Your task to perform on an android device: Turn off the flashlight Image 0: 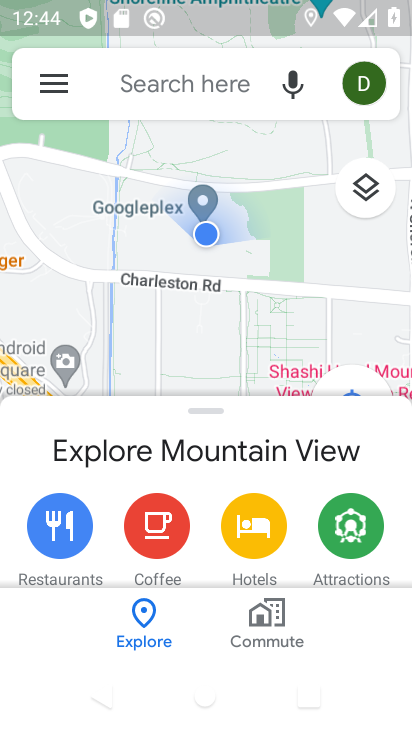
Step 0: press back button
Your task to perform on an android device: Turn off the flashlight Image 1: 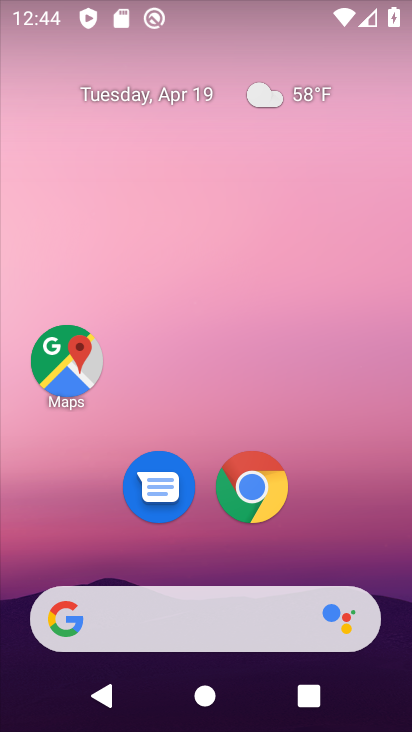
Step 1: drag from (206, 726) to (212, 25)
Your task to perform on an android device: Turn off the flashlight Image 2: 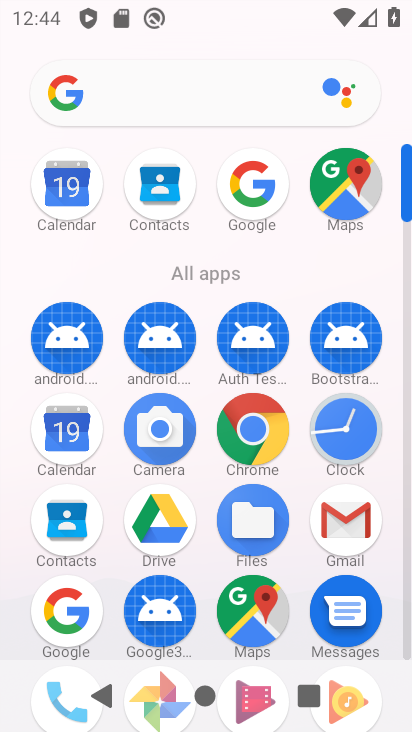
Step 2: drag from (205, 648) to (210, 173)
Your task to perform on an android device: Turn off the flashlight Image 3: 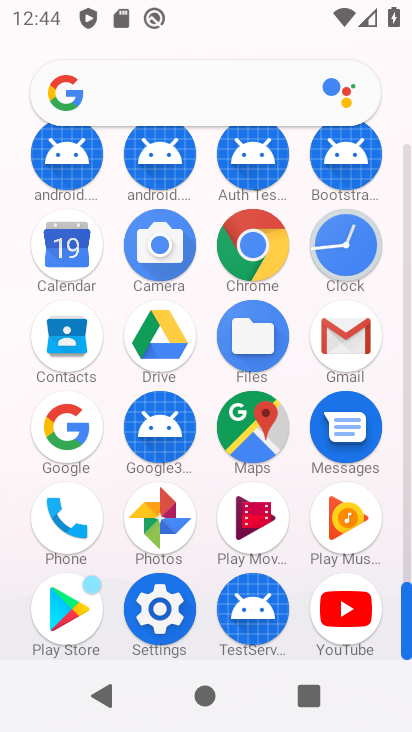
Step 3: click (167, 609)
Your task to perform on an android device: Turn off the flashlight Image 4: 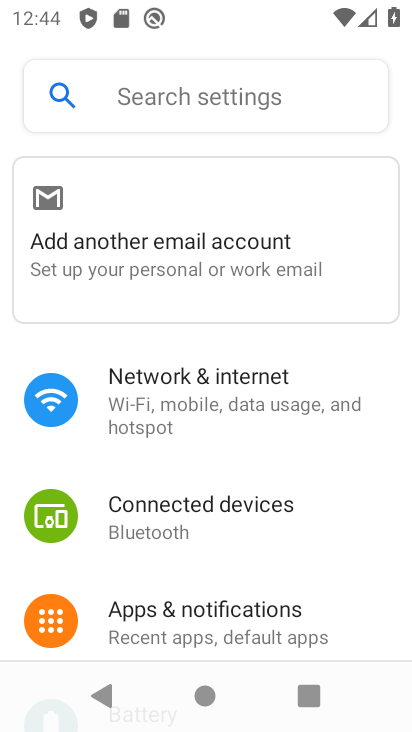
Step 4: task complete